Your task to perform on an android device: Go to Maps Image 0: 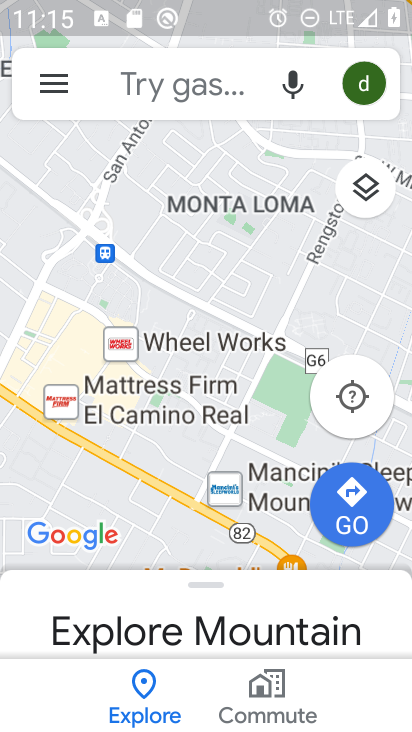
Step 0: drag from (183, 238) to (160, 436)
Your task to perform on an android device: Go to Maps Image 1: 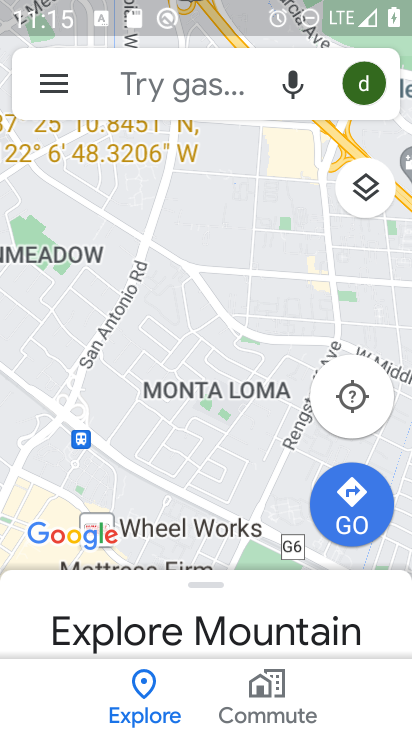
Step 1: task complete